Your task to perform on an android device: Check the settings for the Amazon Alexa app Image 0: 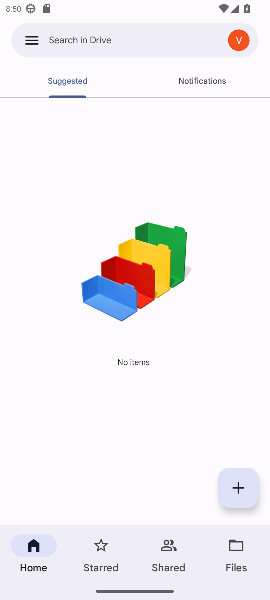
Step 0: press home button
Your task to perform on an android device: Check the settings for the Amazon Alexa app Image 1: 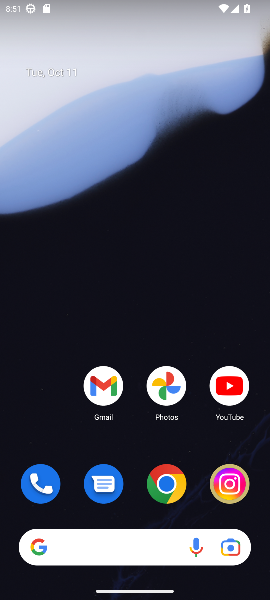
Step 1: drag from (100, 556) to (166, 208)
Your task to perform on an android device: Check the settings for the Amazon Alexa app Image 2: 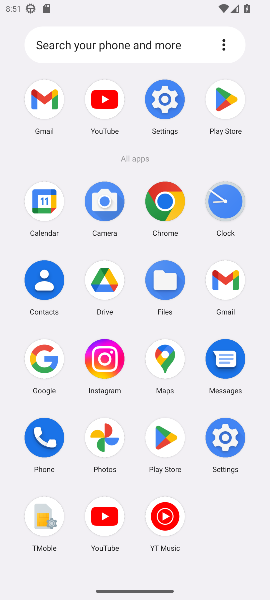
Step 2: click (226, 107)
Your task to perform on an android device: Check the settings for the Amazon Alexa app Image 3: 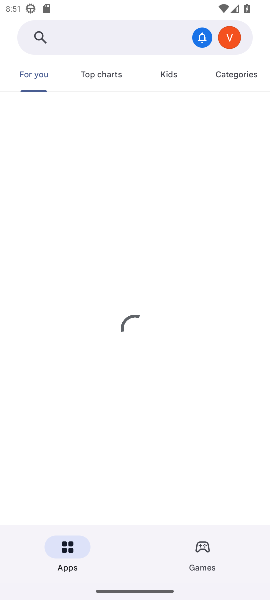
Step 3: click (136, 42)
Your task to perform on an android device: Check the settings for the Amazon Alexa app Image 4: 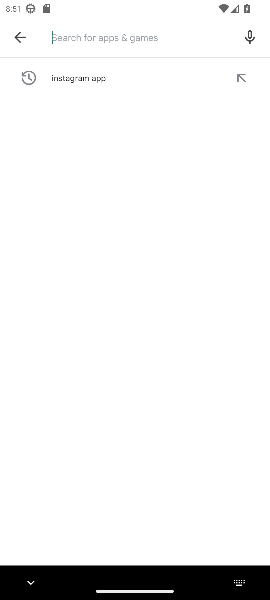
Step 4: type "Amazon Alexa app"
Your task to perform on an android device: Check the settings for the Amazon Alexa app Image 5: 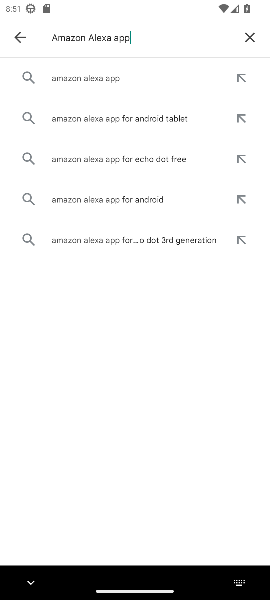
Step 5: click (76, 83)
Your task to perform on an android device: Check the settings for the Amazon Alexa app Image 6: 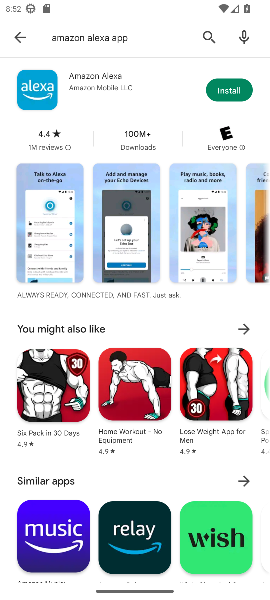
Step 6: task complete